Your task to perform on an android device: open app "Fetch Rewards" (install if not already installed) Image 0: 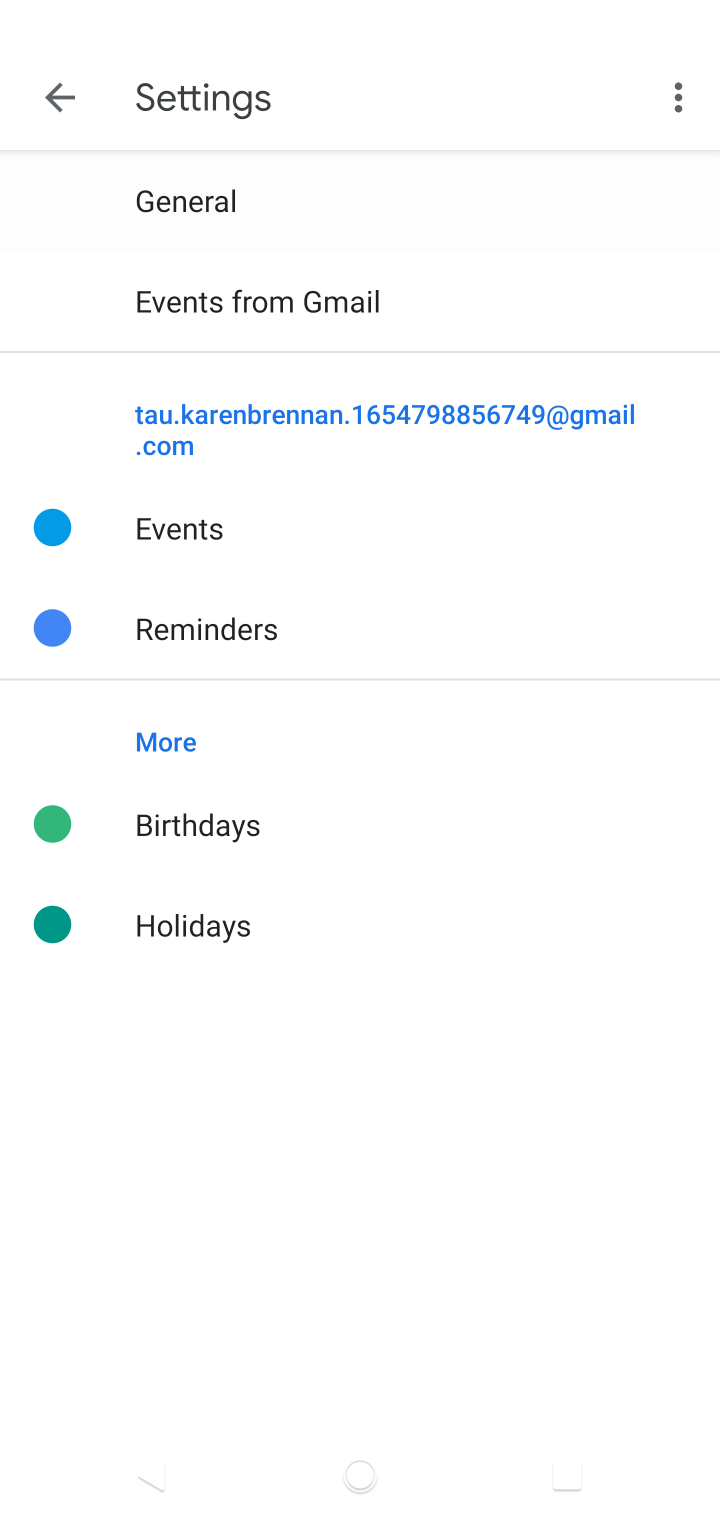
Step 0: press home button
Your task to perform on an android device: open app "Fetch Rewards" (install if not already installed) Image 1: 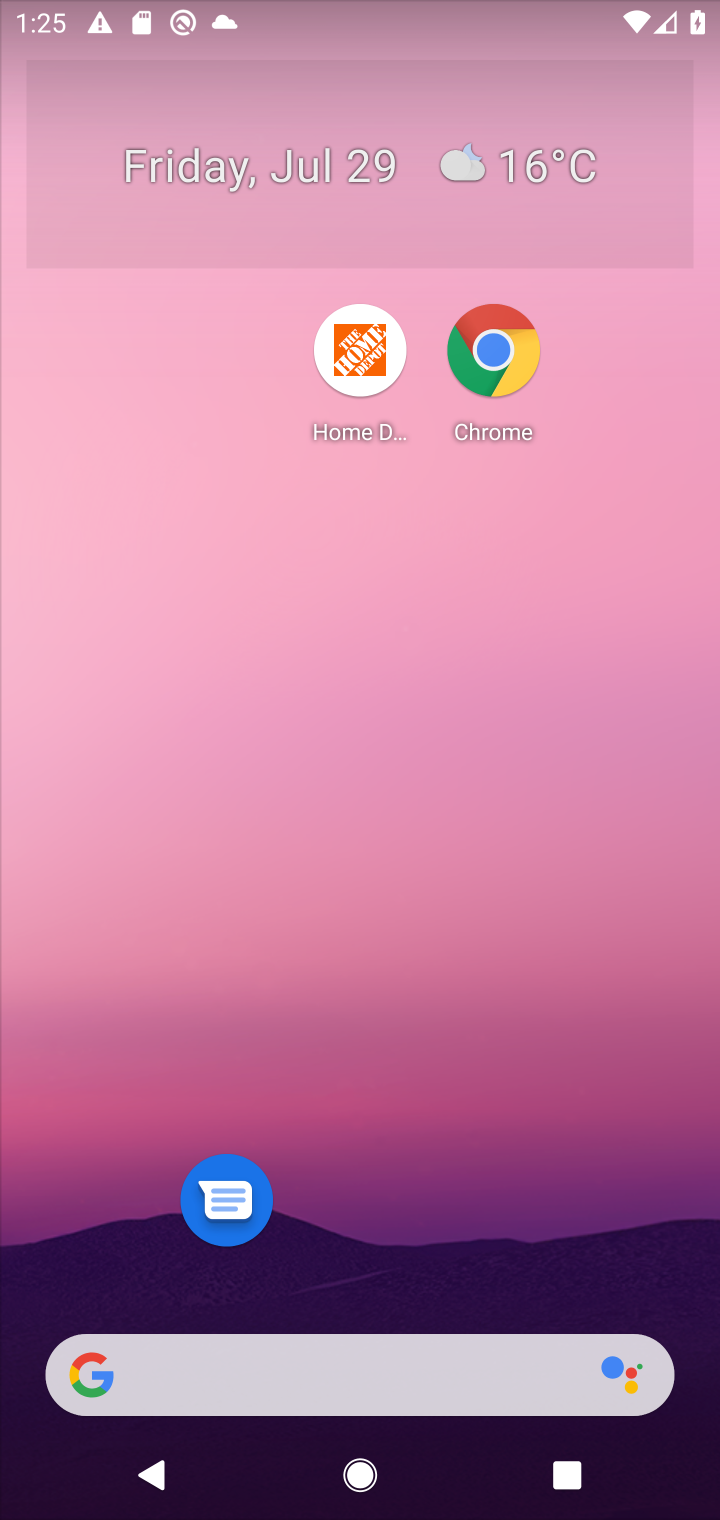
Step 1: drag from (545, 1123) to (472, 82)
Your task to perform on an android device: open app "Fetch Rewards" (install if not already installed) Image 2: 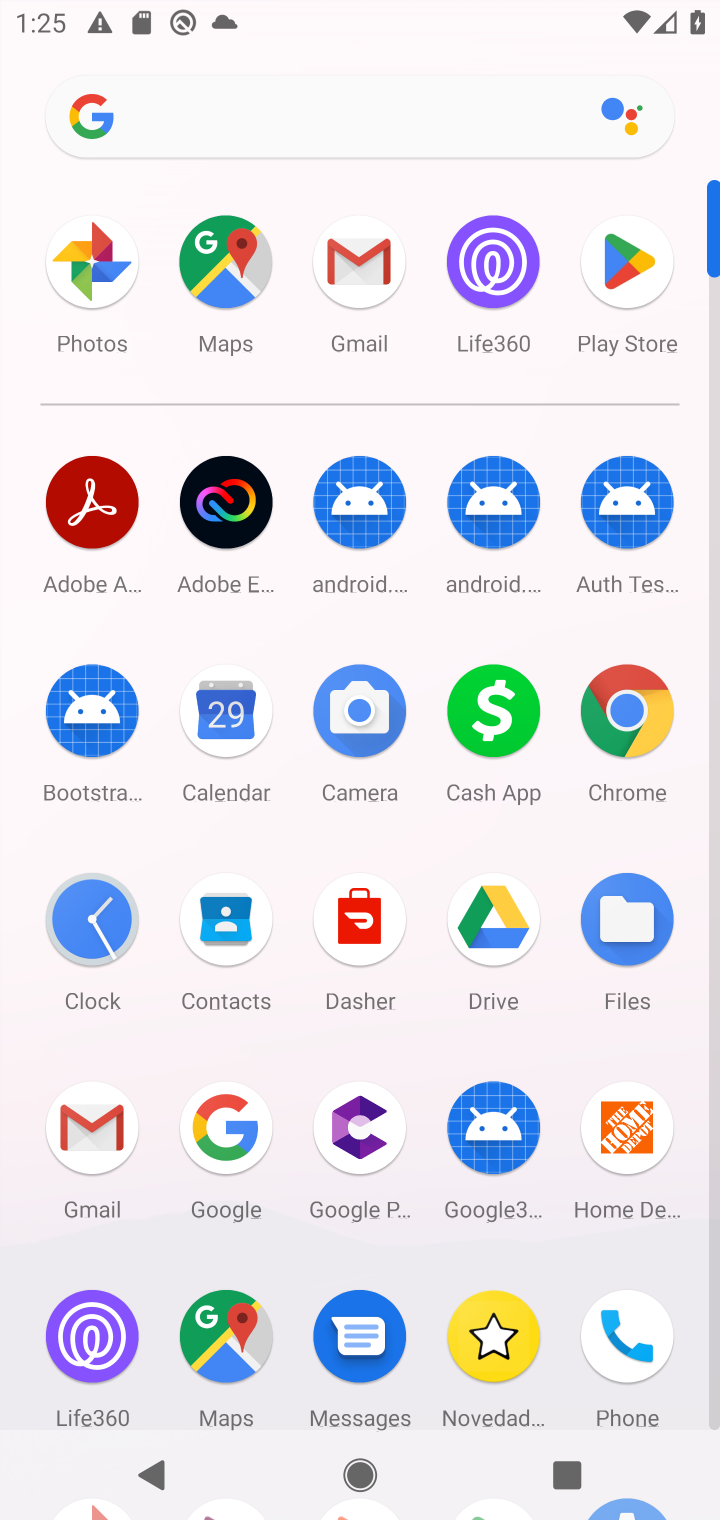
Step 2: click (647, 290)
Your task to perform on an android device: open app "Fetch Rewards" (install if not already installed) Image 3: 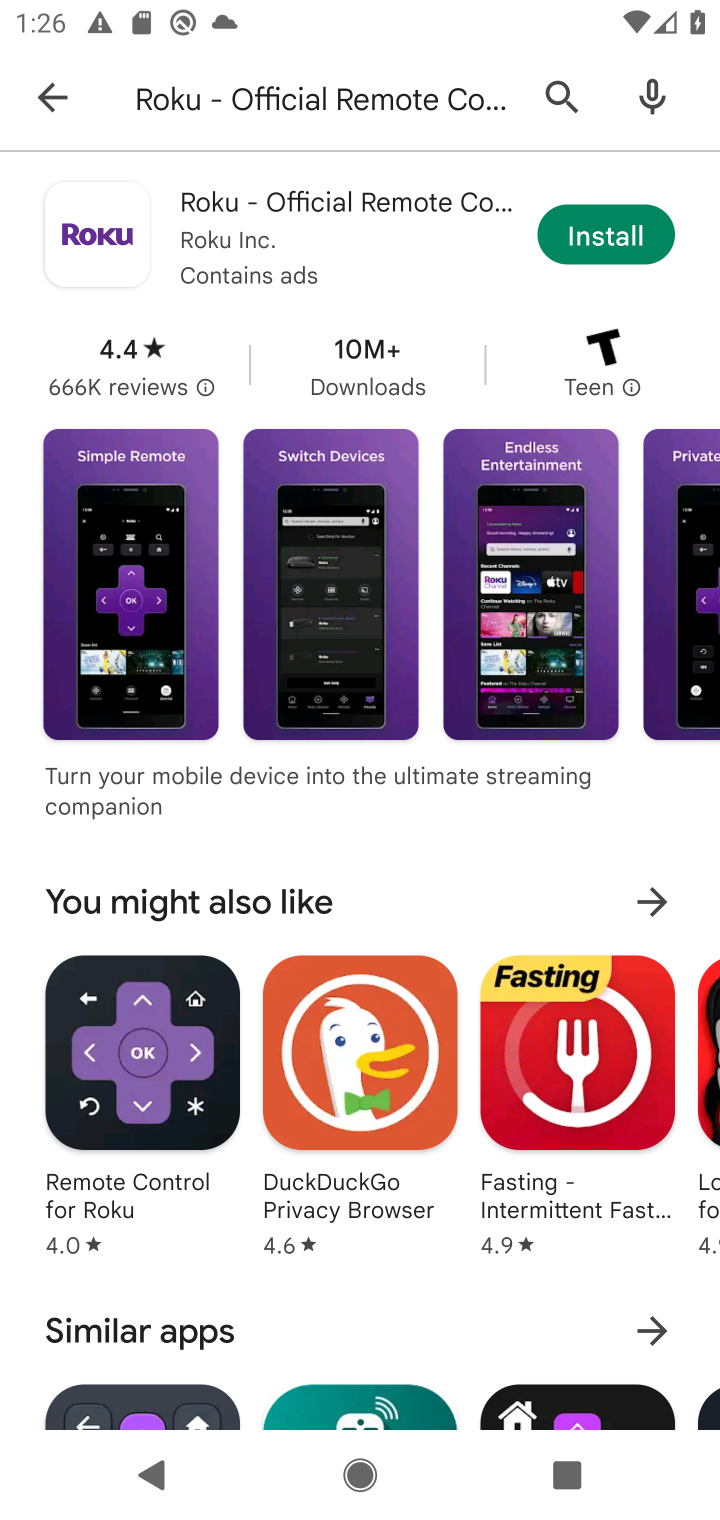
Step 3: click (347, 94)
Your task to perform on an android device: open app "Fetch Rewards" (install if not already installed) Image 4: 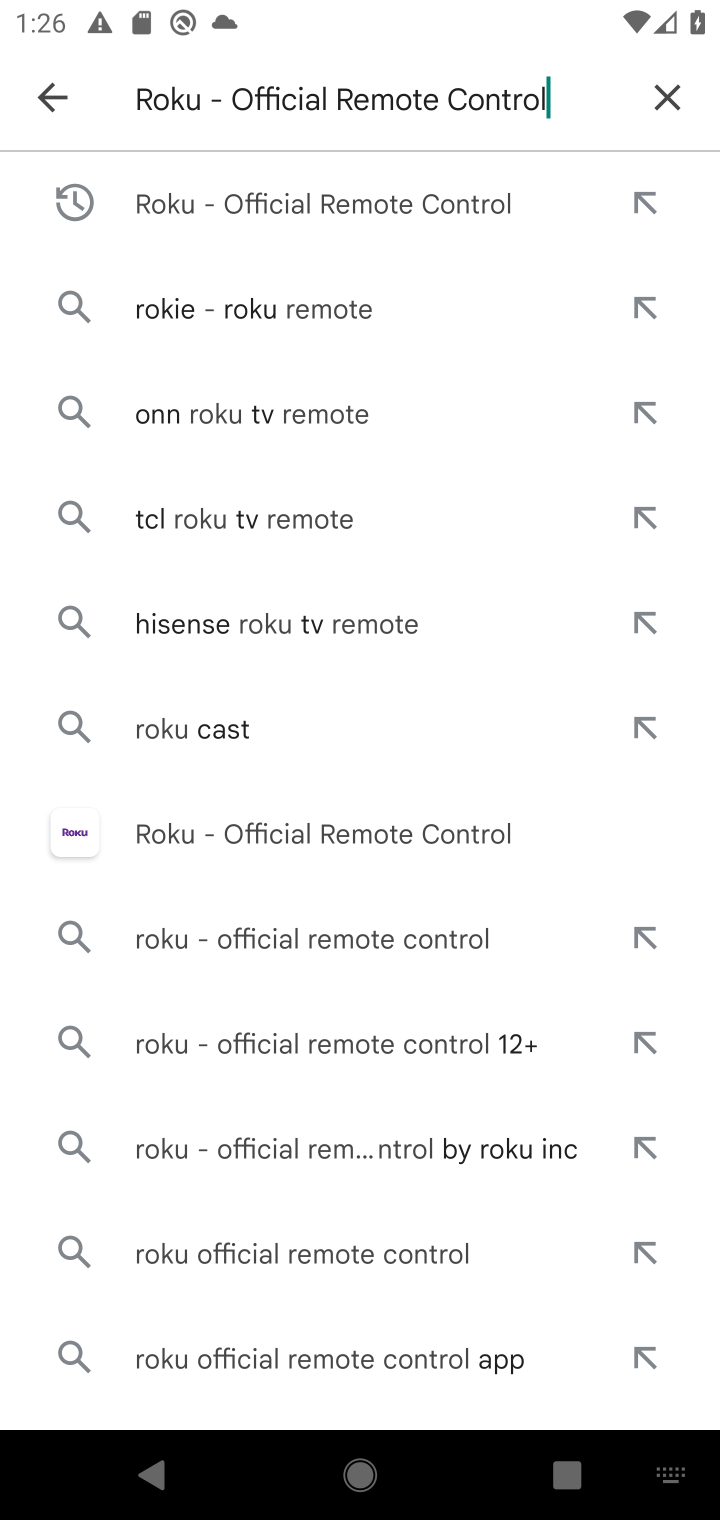
Step 4: click (641, 92)
Your task to perform on an android device: open app "Fetch Rewards" (install if not already installed) Image 5: 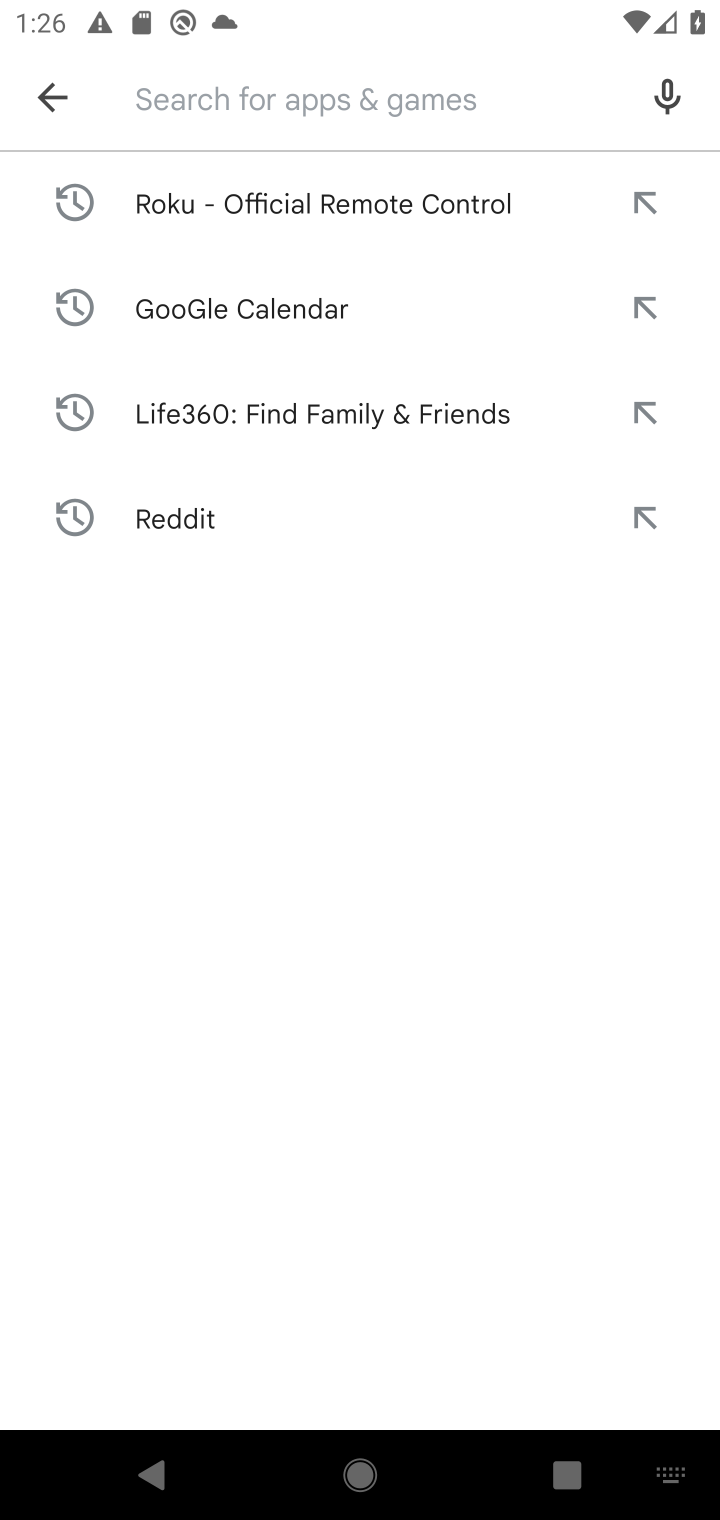
Step 5: type "Fetch Rewards"
Your task to perform on an android device: open app "Fetch Rewards" (install if not already installed) Image 6: 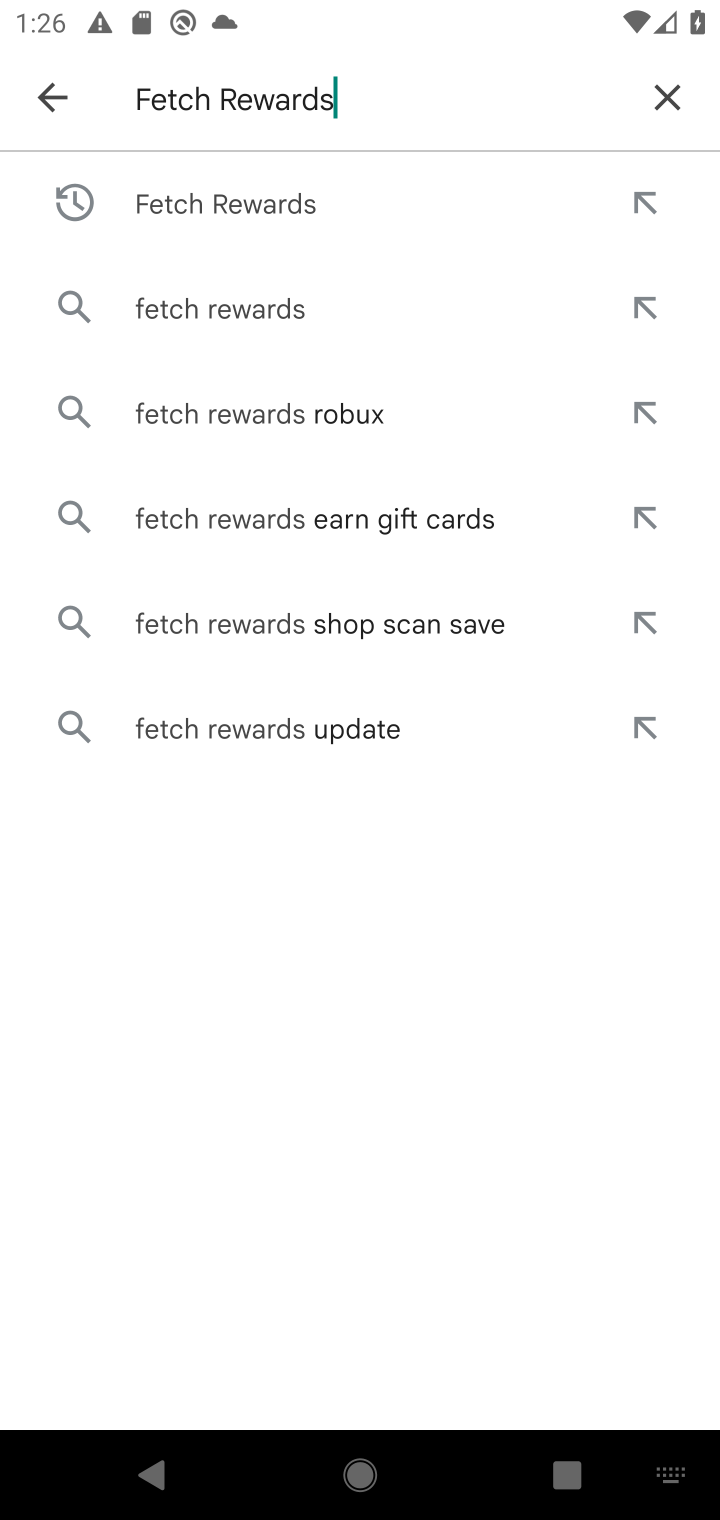
Step 6: press enter
Your task to perform on an android device: open app "Fetch Rewards" (install if not already installed) Image 7: 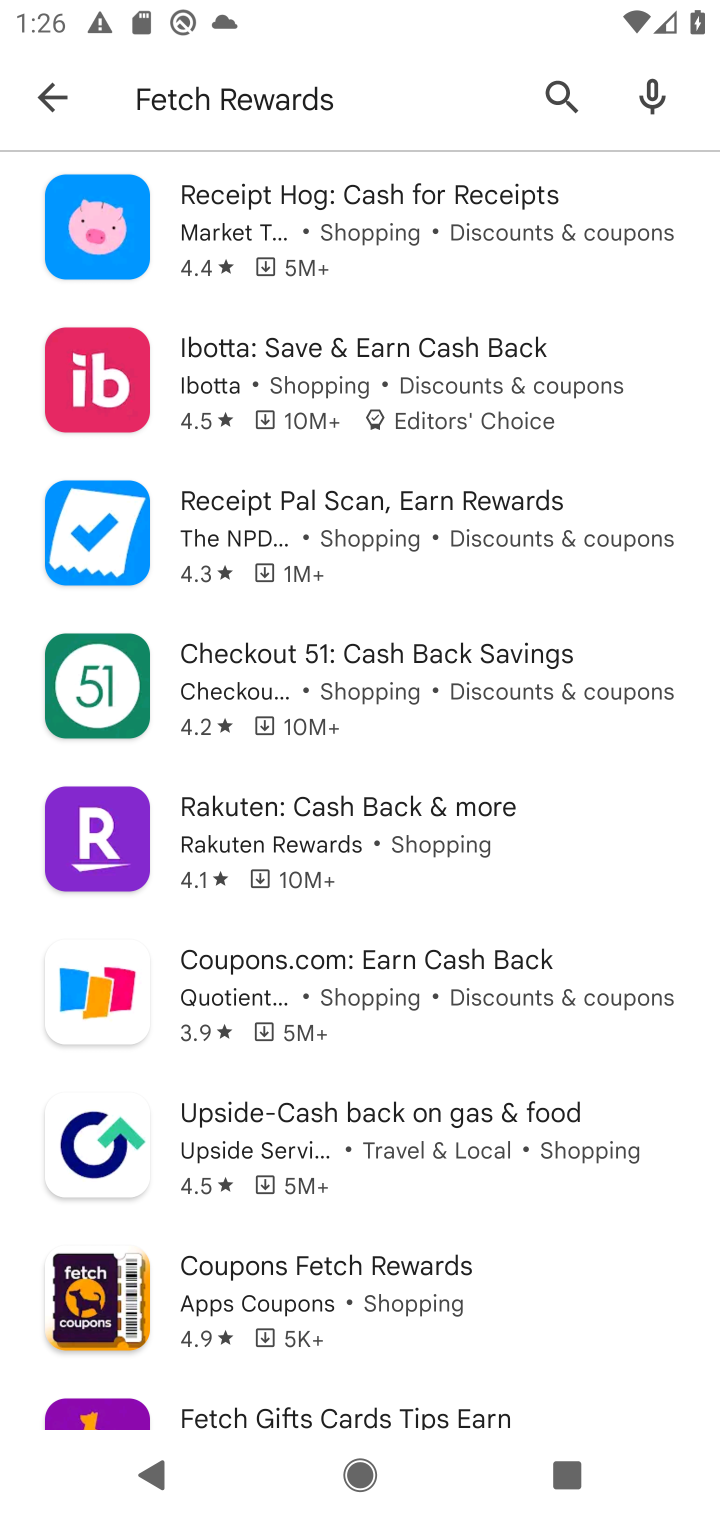
Step 7: task complete